Your task to perform on an android device: turn on location history Image 0: 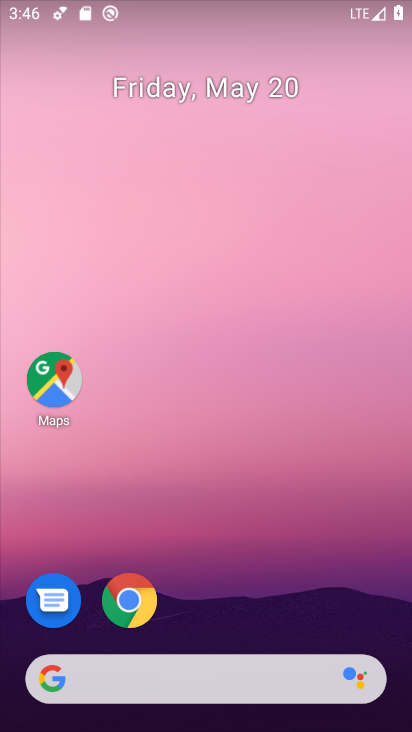
Step 0: drag from (331, 619) to (321, 204)
Your task to perform on an android device: turn on location history Image 1: 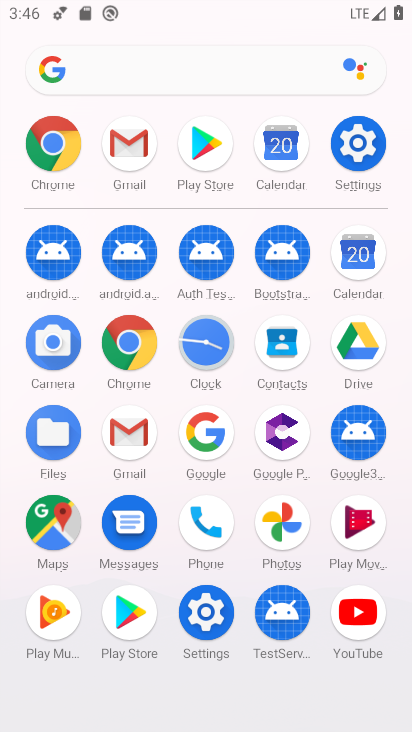
Step 1: click (360, 164)
Your task to perform on an android device: turn on location history Image 2: 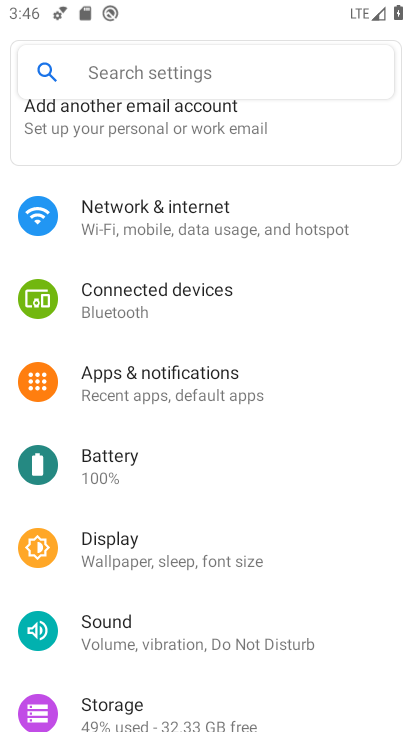
Step 2: drag from (357, 565) to (346, 423)
Your task to perform on an android device: turn on location history Image 3: 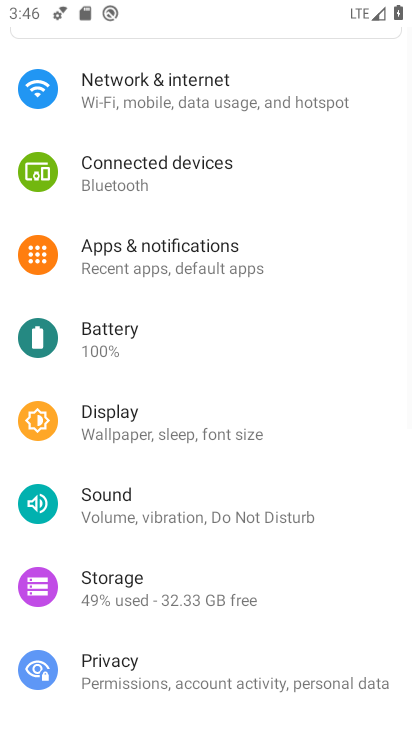
Step 3: drag from (348, 608) to (351, 453)
Your task to perform on an android device: turn on location history Image 4: 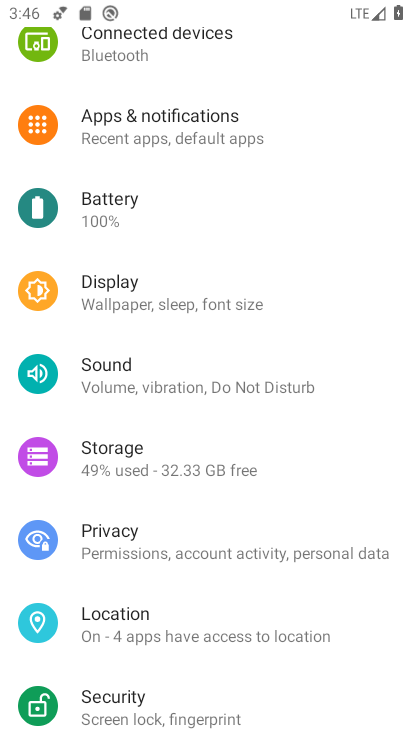
Step 4: drag from (351, 633) to (335, 452)
Your task to perform on an android device: turn on location history Image 5: 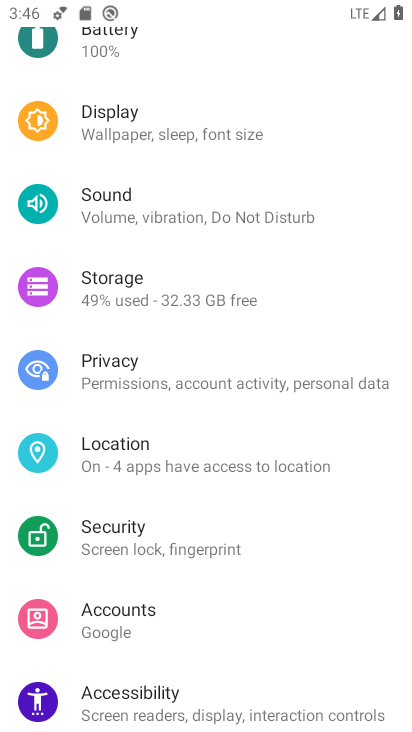
Step 5: drag from (335, 588) to (331, 452)
Your task to perform on an android device: turn on location history Image 6: 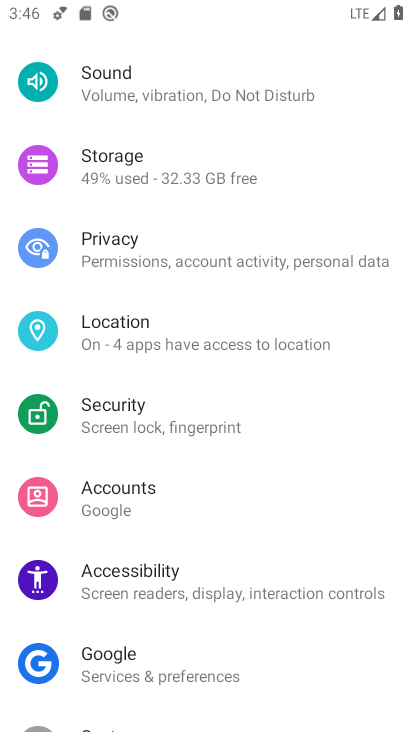
Step 6: drag from (326, 651) to (326, 488)
Your task to perform on an android device: turn on location history Image 7: 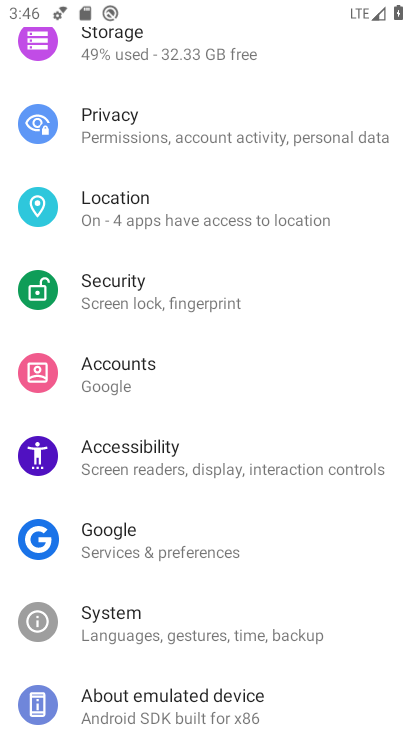
Step 7: drag from (359, 615) to (354, 466)
Your task to perform on an android device: turn on location history Image 8: 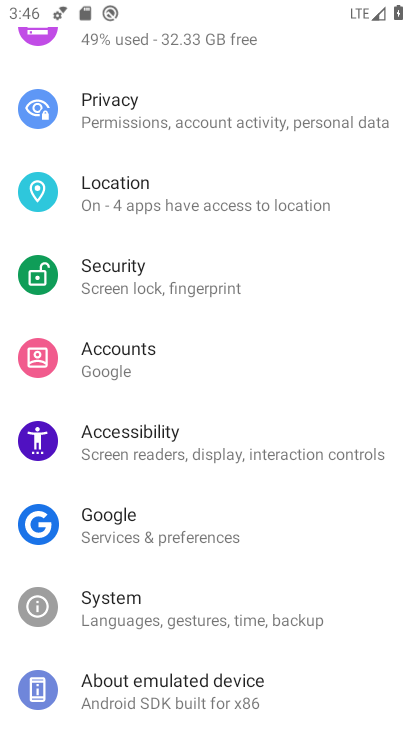
Step 8: drag from (328, 388) to (338, 580)
Your task to perform on an android device: turn on location history Image 9: 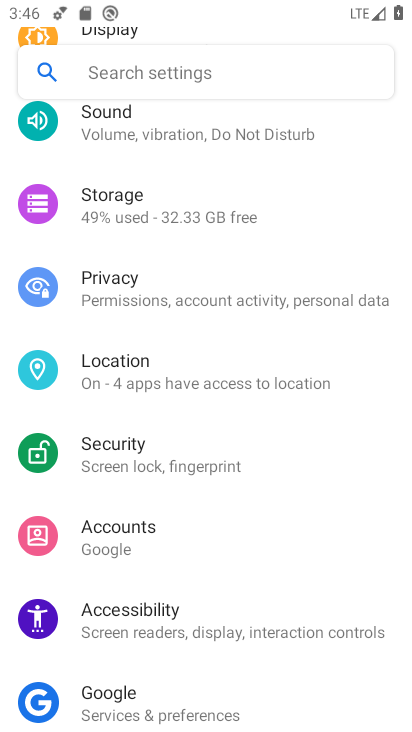
Step 9: drag from (352, 400) to (352, 563)
Your task to perform on an android device: turn on location history Image 10: 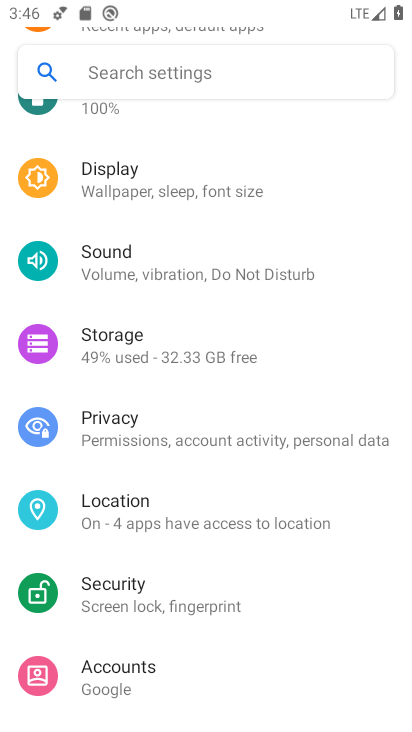
Step 10: drag from (336, 374) to (335, 507)
Your task to perform on an android device: turn on location history Image 11: 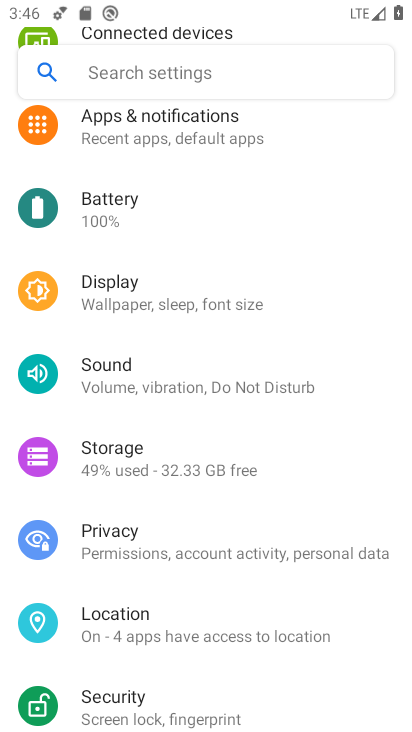
Step 11: drag from (332, 317) to (331, 483)
Your task to perform on an android device: turn on location history Image 12: 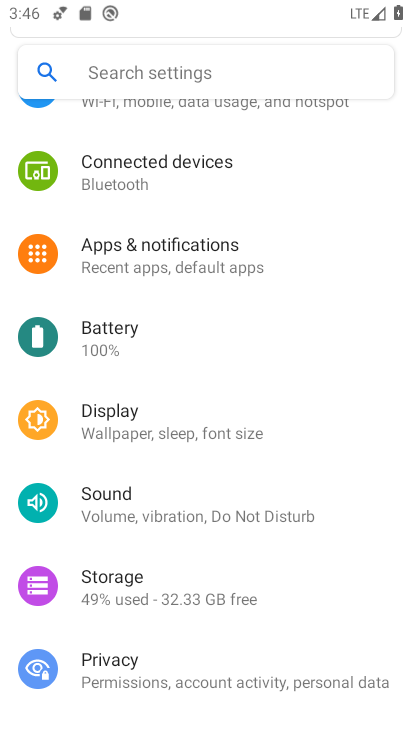
Step 12: drag from (325, 285) to (322, 479)
Your task to perform on an android device: turn on location history Image 13: 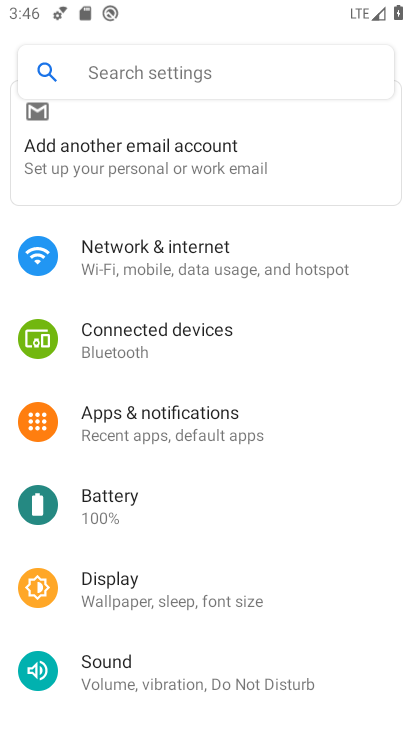
Step 13: drag from (316, 524) to (314, 387)
Your task to perform on an android device: turn on location history Image 14: 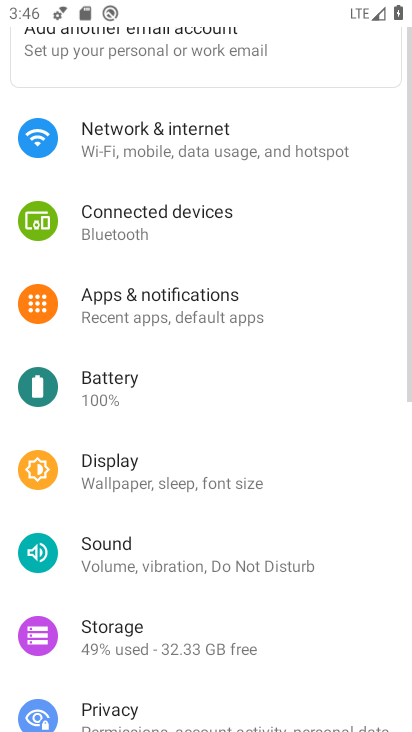
Step 14: drag from (332, 637) to (329, 482)
Your task to perform on an android device: turn on location history Image 15: 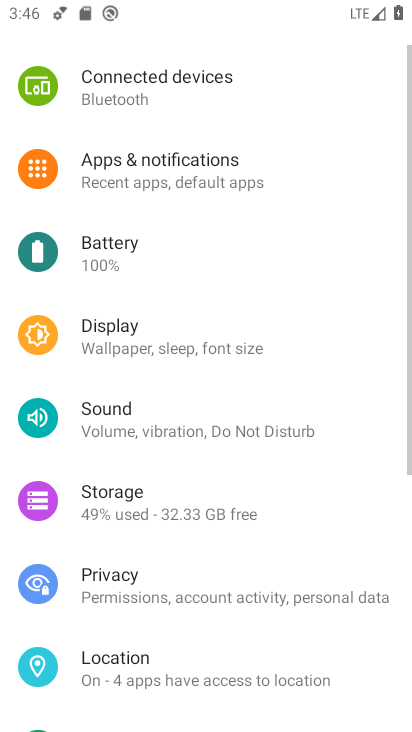
Step 15: drag from (335, 616) to (335, 472)
Your task to perform on an android device: turn on location history Image 16: 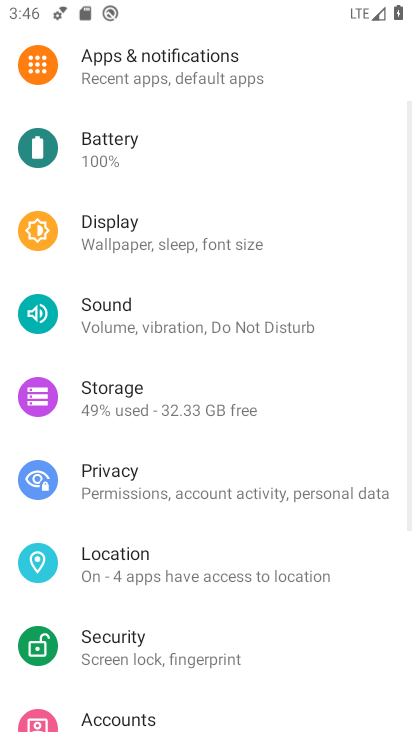
Step 16: drag from (344, 645) to (338, 504)
Your task to perform on an android device: turn on location history Image 17: 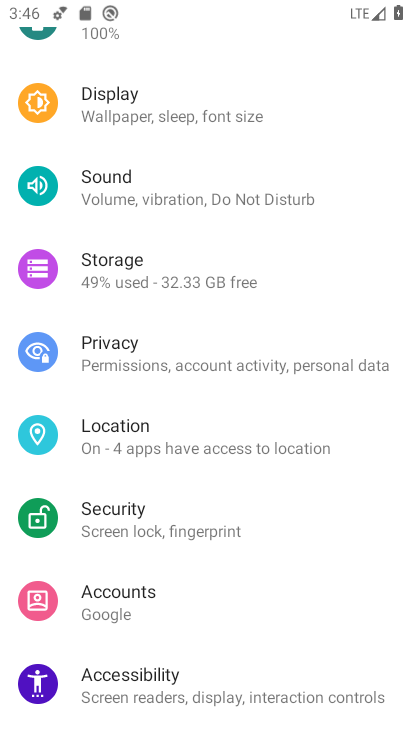
Step 17: drag from (342, 660) to (343, 536)
Your task to perform on an android device: turn on location history Image 18: 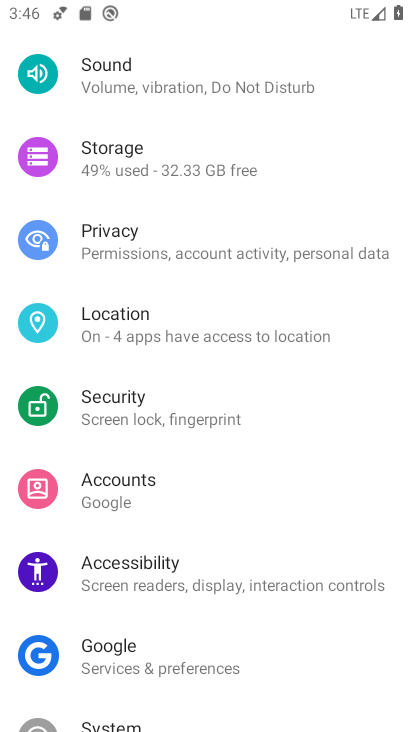
Step 18: drag from (341, 682) to (340, 536)
Your task to perform on an android device: turn on location history Image 19: 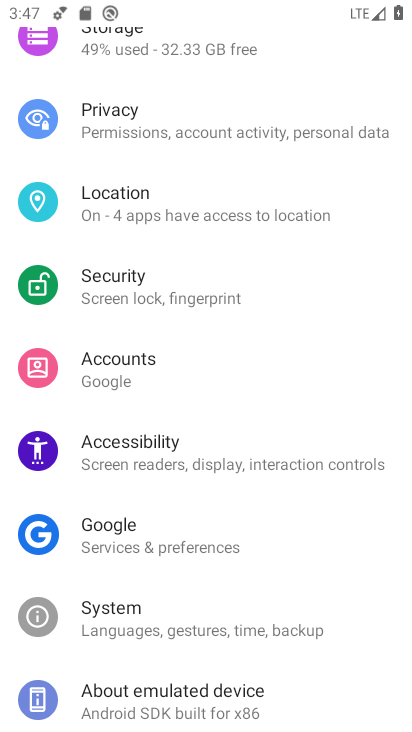
Step 19: drag from (326, 401) to (327, 597)
Your task to perform on an android device: turn on location history Image 20: 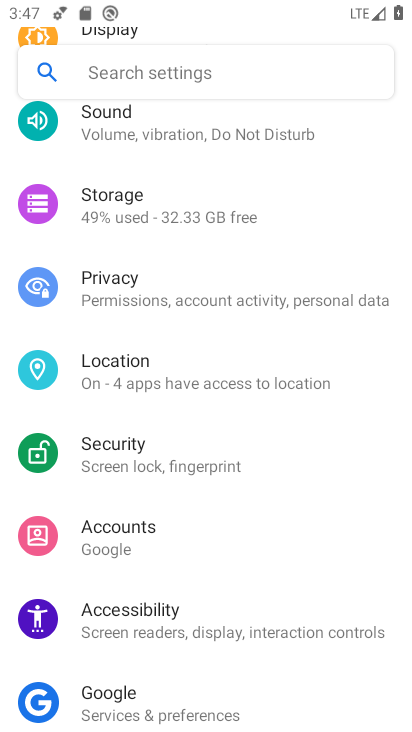
Step 20: drag from (330, 373) to (330, 575)
Your task to perform on an android device: turn on location history Image 21: 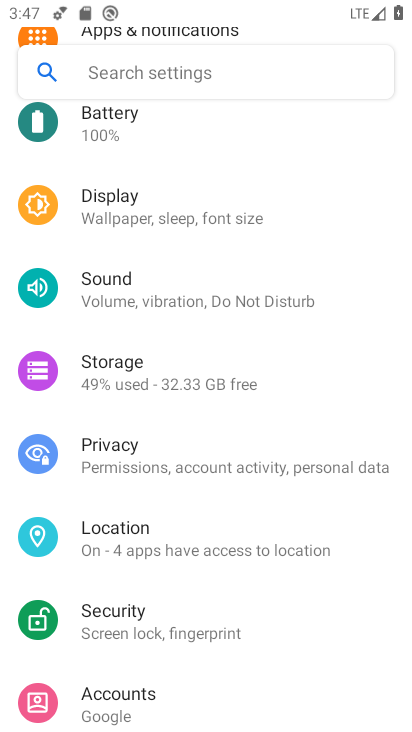
Step 21: click (154, 541)
Your task to perform on an android device: turn on location history Image 22: 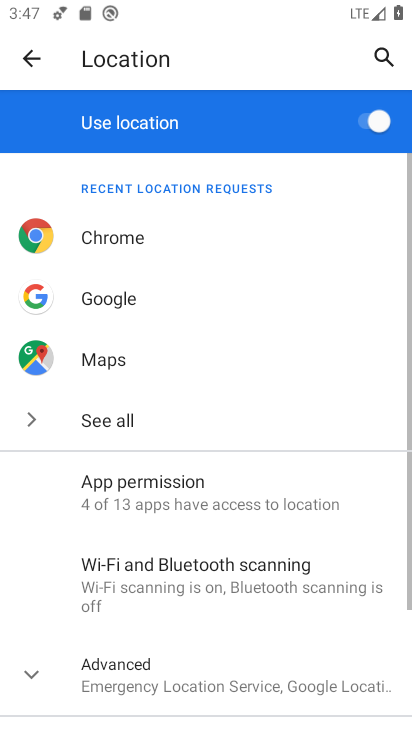
Step 22: drag from (257, 608) to (264, 464)
Your task to perform on an android device: turn on location history Image 23: 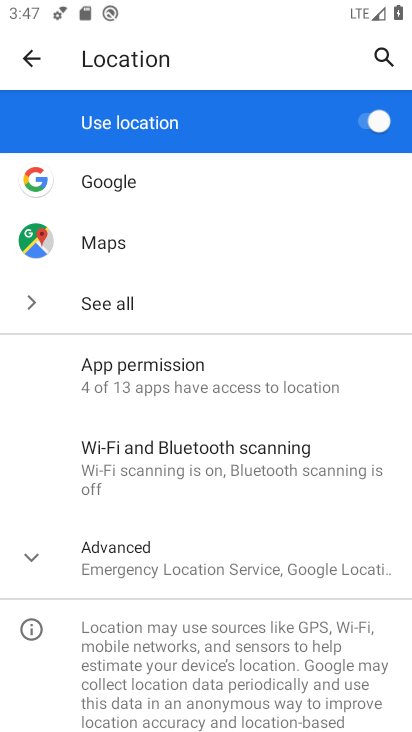
Step 23: click (216, 579)
Your task to perform on an android device: turn on location history Image 24: 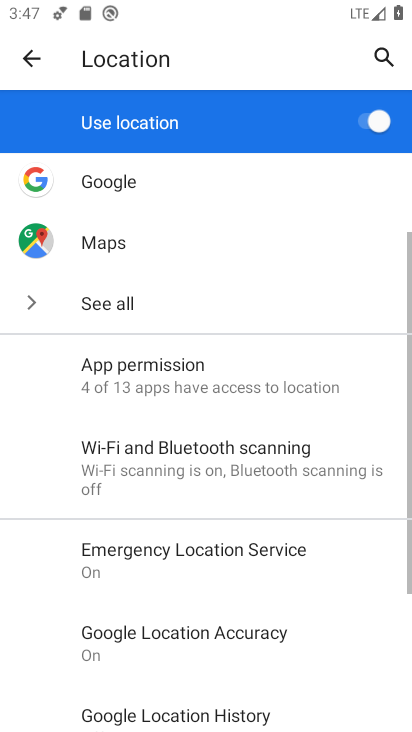
Step 24: drag from (239, 644) to (240, 474)
Your task to perform on an android device: turn on location history Image 25: 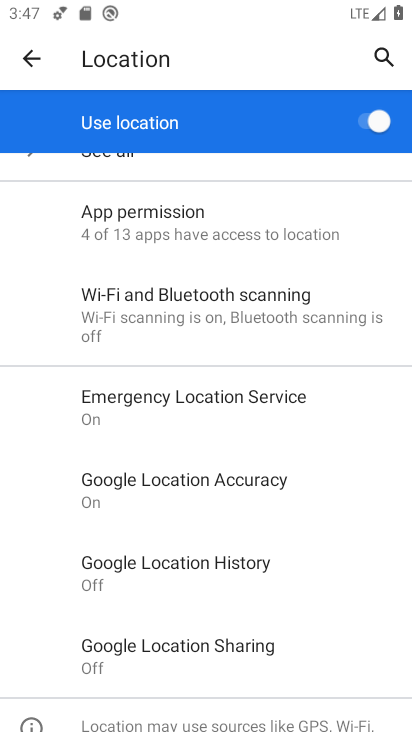
Step 25: click (153, 583)
Your task to perform on an android device: turn on location history Image 26: 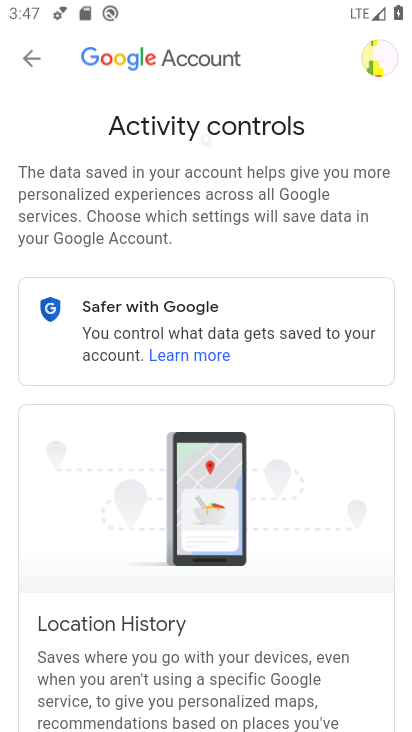
Step 26: task complete